Your task to perform on an android device: turn pop-ups off in chrome Image 0: 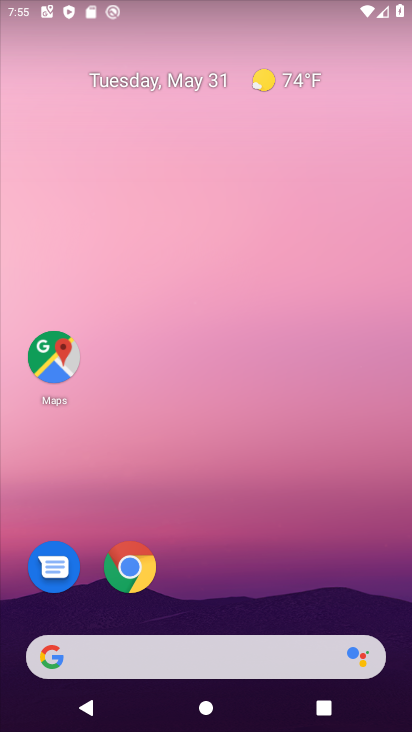
Step 0: drag from (284, 685) to (173, 53)
Your task to perform on an android device: turn pop-ups off in chrome Image 1: 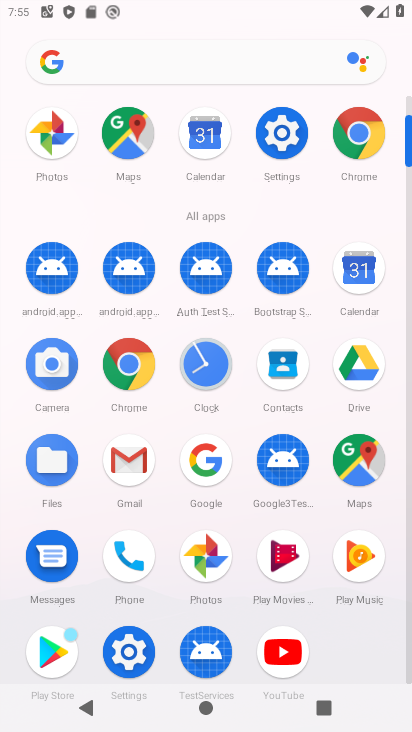
Step 1: drag from (238, 566) to (188, 9)
Your task to perform on an android device: turn pop-ups off in chrome Image 2: 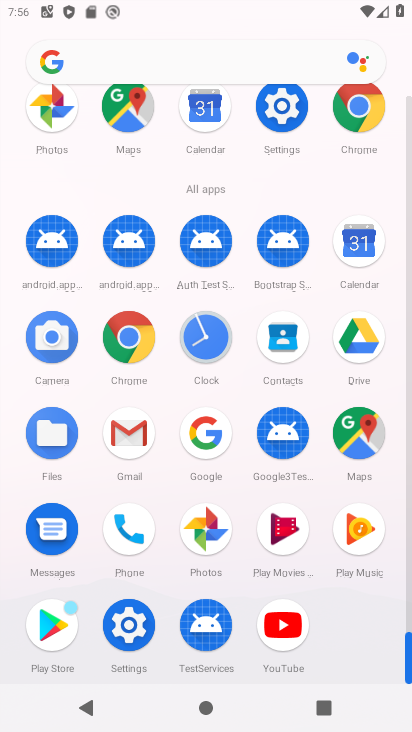
Step 2: click (366, 114)
Your task to perform on an android device: turn pop-ups off in chrome Image 3: 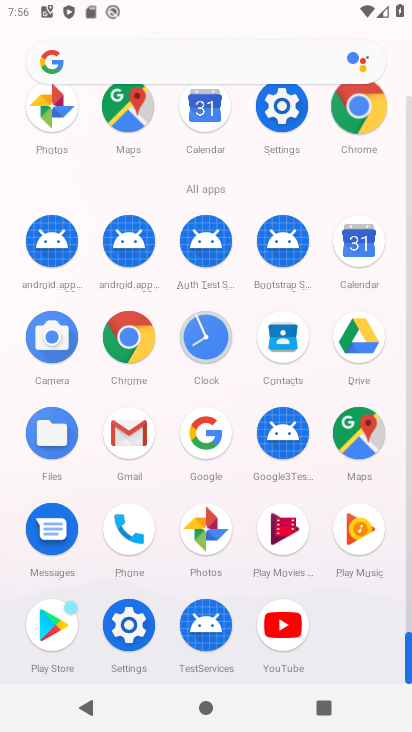
Step 3: click (365, 114)
Your task to perform on an android device: turn pop-ups off in chrome Image 4: 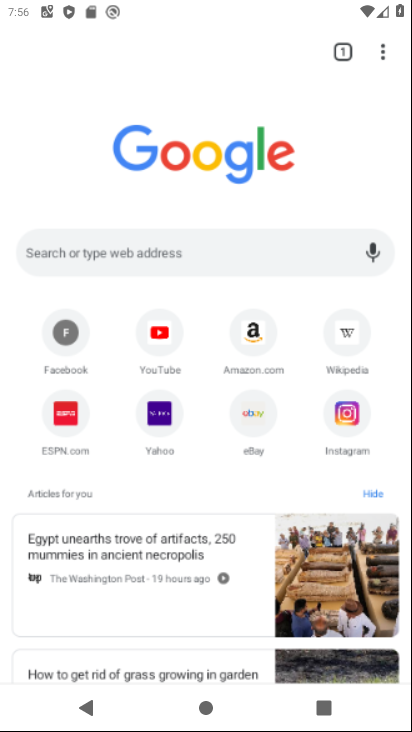
Step 4: click (344, 103)
Your task to perform on an android device: turn pop-ups off in chrome Image 5: 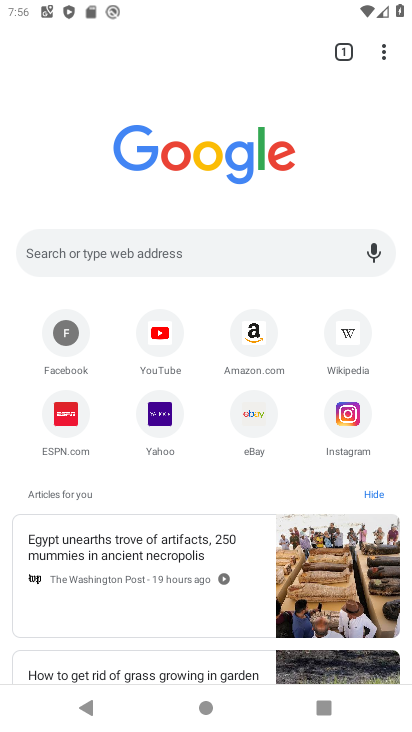
Step 5: drag from (386, 57) to (194, 446)
Your task to perform on an android device: turn pop-ups off in chrome Image 6: 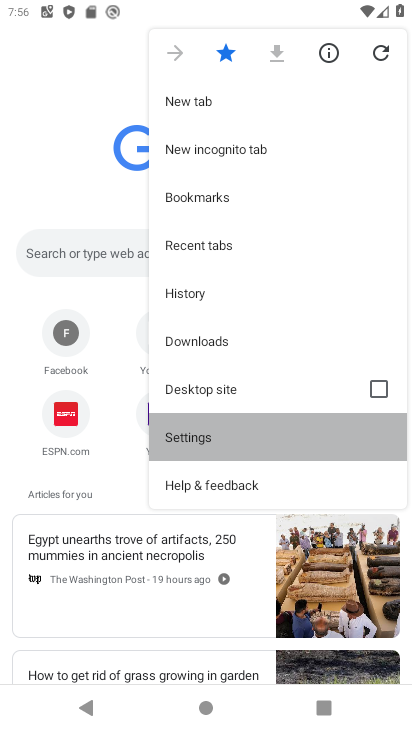
Step 6: click (193, 447)
Your task to perform on an android device: turn pop-ups off in chrome Image 7: 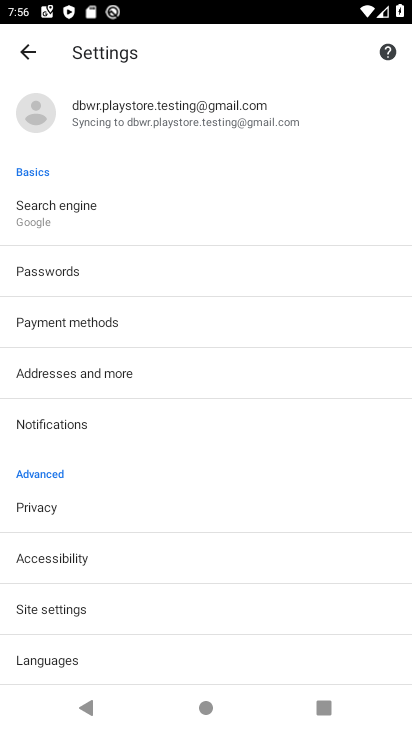
Step 7: click (39, 609)
Your task to perform on an android device: turn pop-ups off in chrome Image 8: 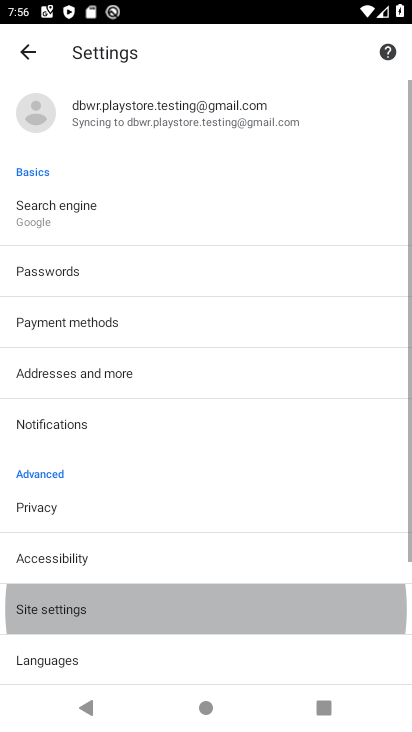
Step 8: click (39, 609)
Your task to perform on an android device: turn pop-ups off in chrome Image 9: 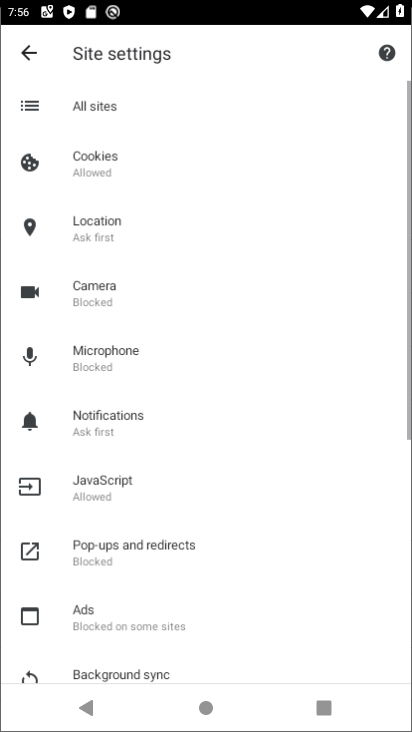
Step 9: click (42, 605)
Your task to perform on an android device: turn pop-ups off in chrome Image 10: 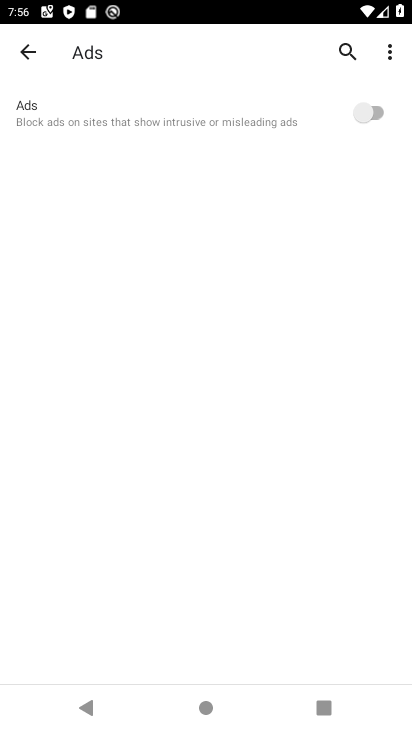
Step 10: click (33, 60)
Your task to perform on an android device: turn pop-ups off in chrome Image 11: 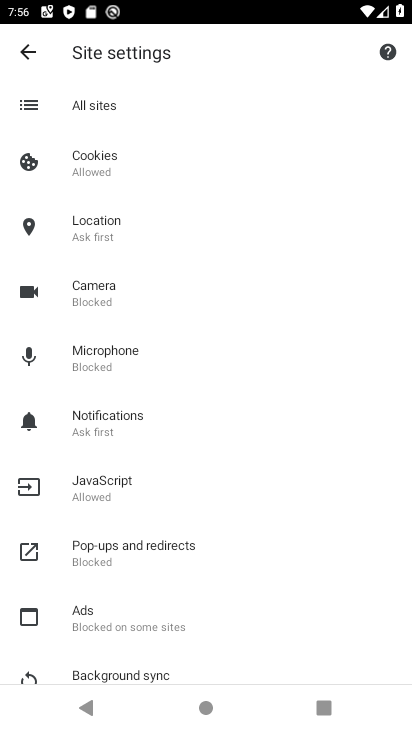
Step 11: click (101, 533)
Your task to perform on an android device: turn pop-ups off in chrome Image 12: 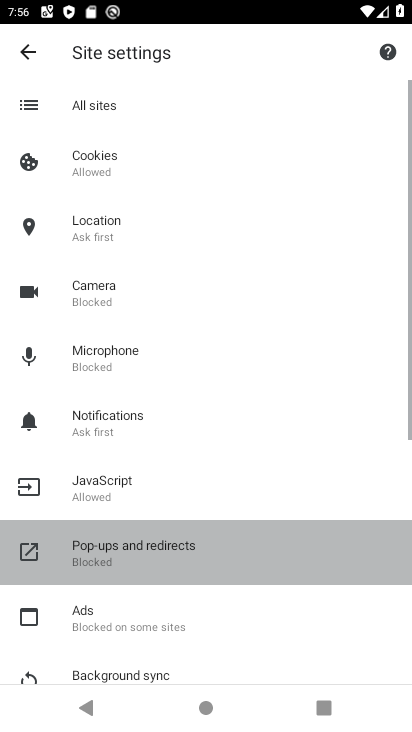
Step 12: click (103, 548)
Your task to perform on an android device: turn pop-ups off in chrome Image 13: 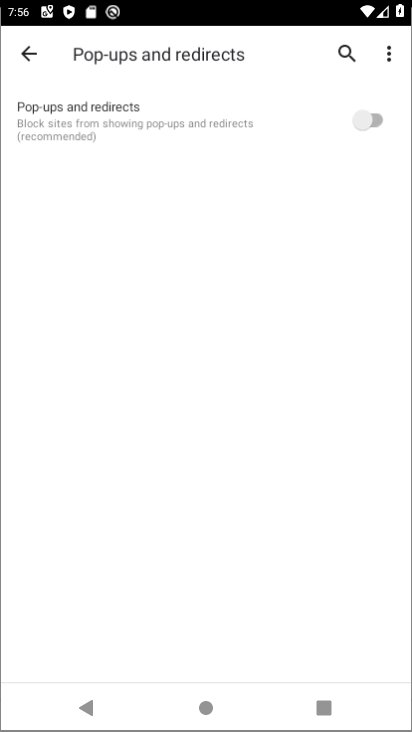
Step 13: click (105, 551)
Your task to perform on an android device: turn pop-ups off in chrome Image 14: 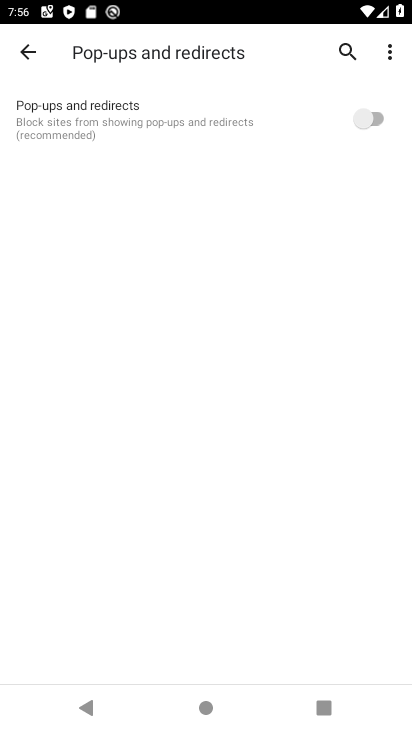
Step 14: click (106, 552)
Your task to perform on an android device: turn pop-ups off in chrome Image 15: 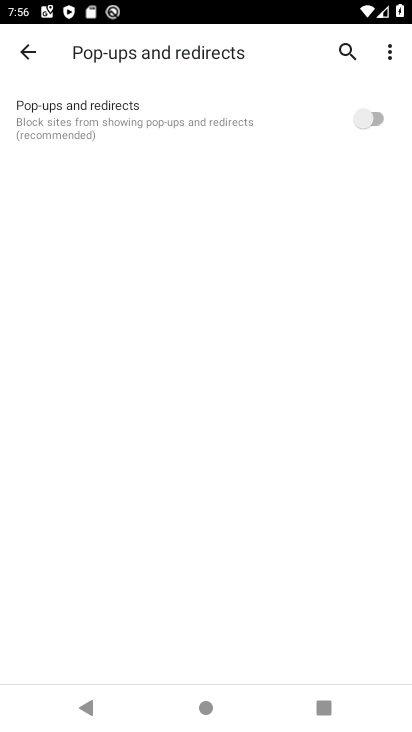
Step 15: task complete